Your task to perform on an android device: Go to battery settings Image 0: 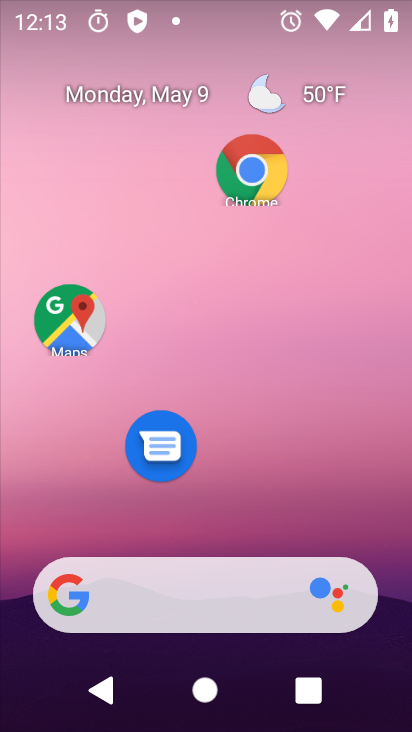
Step 0: drag from (315, 542) to (287, 51)
Your task to perform on an android device: Go to battery settings Image 1: 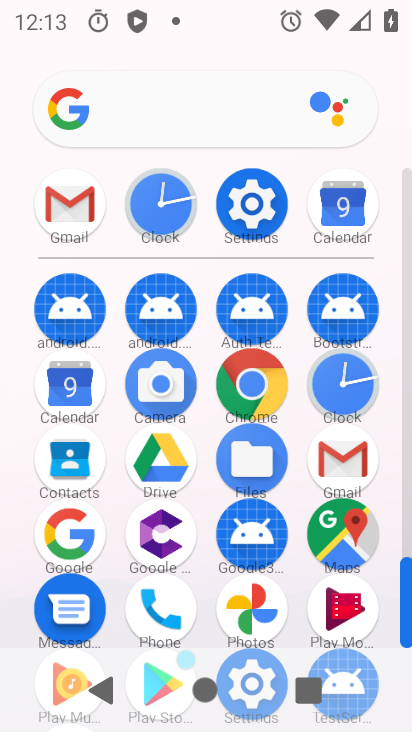
Step 1: click (258, 198)
Your task to perform on an android device: Go to battery settings Image 2: 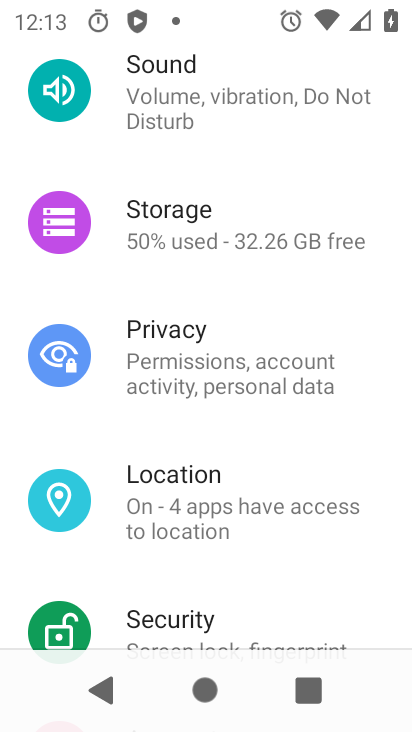
Step 2: drag from (223, 188) to (232, 326)
Your task to perform on an android device: Go to battery settings Image 3: 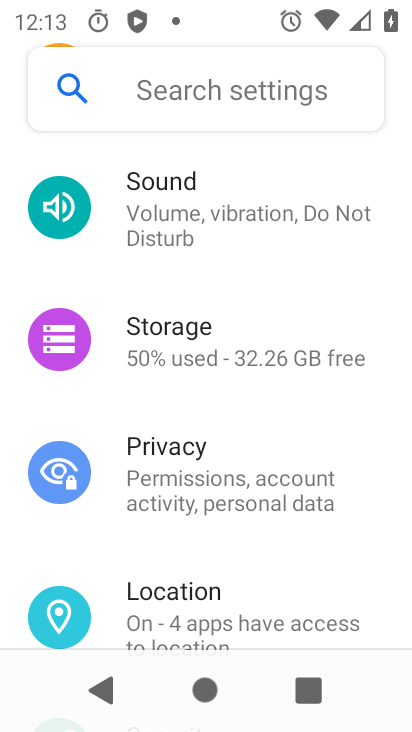
Step 3: drag from (205, 221) to (243, 327)
Your task to perform on an android device: Go to battery settings Image 4: 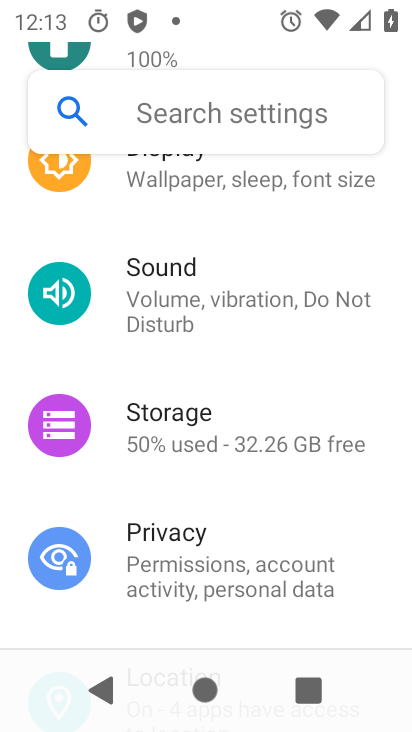
Step 4: drag from (206, 259) to (240, 355)
Your task to perform on an android device: Go to battery settings Image 5: 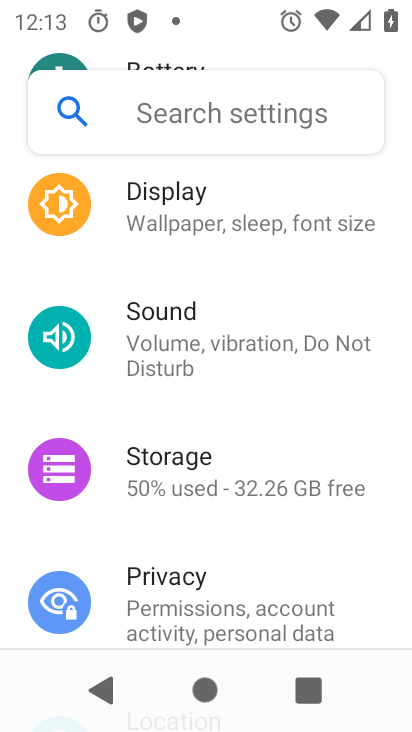
Step 5: drag from (216, 256) to (261, 428)
Your task to perform on an android device: Go to battery settings Image 6: 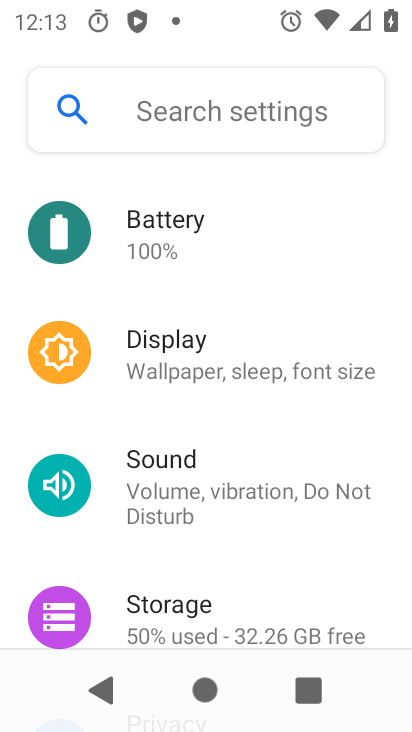
Step 6: click (213, 236)
Your task to perform on an android device: Go to battery settings Image 7: 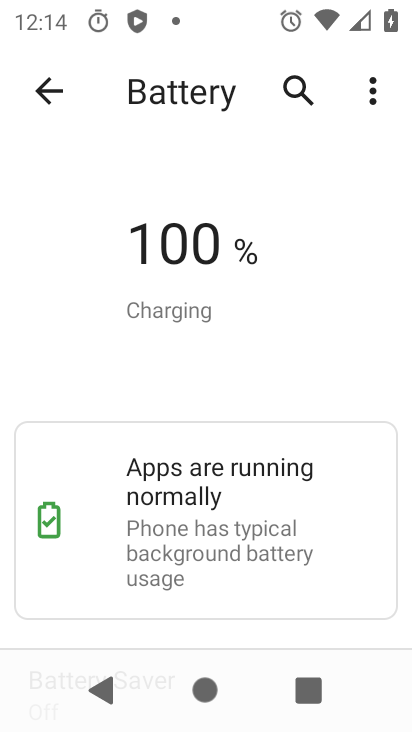
Step 7: task complete